Your task to perform on an android device: open app "Paramount+ | Peak Streaming" (install if not already installed) and enter user name: "fostered@yahoo.com" and password: "strong" Image 0: 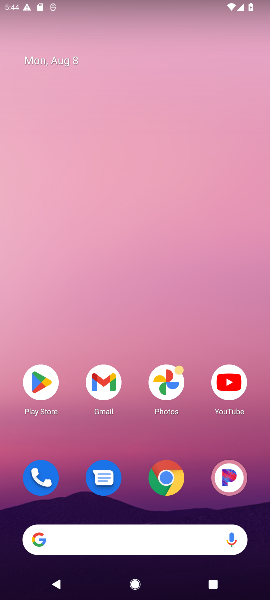
Step 0: drag from (153, 328) to (168, 244)
Your task to perform on an android device: open app "Paramount+ | Peak Streaming" (install if not already installed) and enter user name: "fostered@yahoo.com" and password: "strong" Image 1: 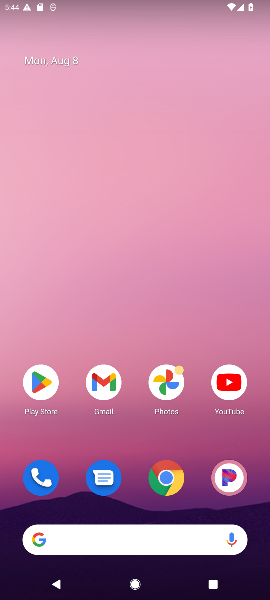
Step 1: click (46, 380)
Your task to perform on an android device: open app "Paramount+ | Peak Streaming" (install if not already installed) and enter user name: "fostered@yahoo.com" and password: "strong" Image 2: 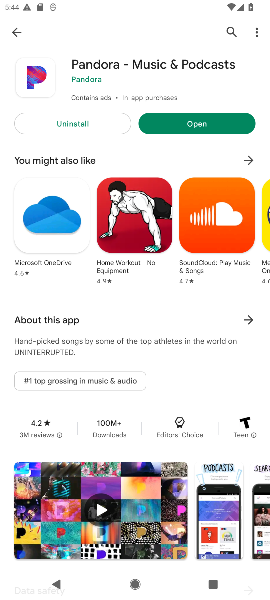
Step 2: click (229, 26)
Your task to perform on an android device: open app "Paramount+ | Peak Streaming" (install if not already installed) and enter user name: "fostered@yahoo.com" and password: "strong" Image 3: 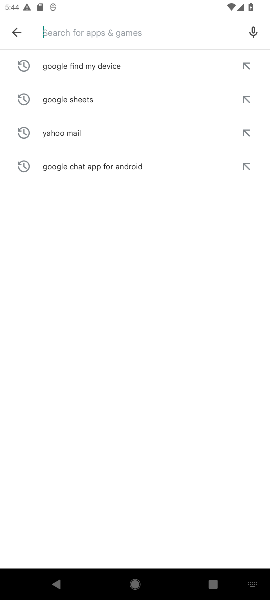
Step 3: type "paramount"
Your task to perform on an android device: open app "Paramount+ | Peak Streaming" (install if not already installed) and enter user name: "fostered@yahoo.com" and password: "strong" Image 4: 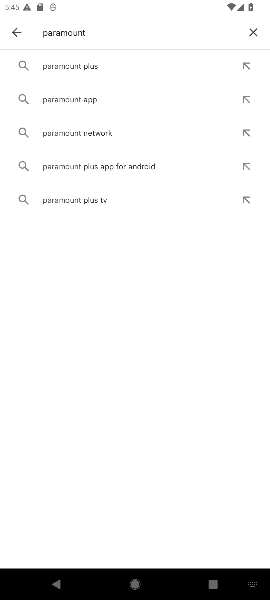
Step 4: type "+| Peask"
Your task to perform on an android device: open app "Paramount+ | Peak Streaming" (install if not already installed) and enter user name: "fostered@yahoo.com" and password: "strong" Image 5: 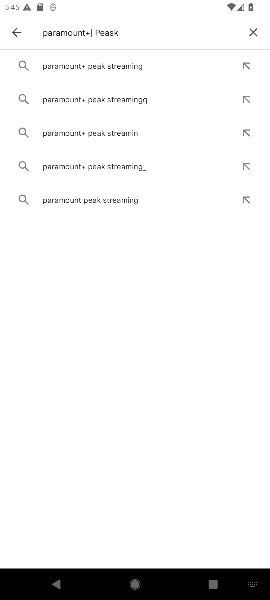
Step 5: click (123, 61)
Your task to perform on an android device: open app "Paramount+ | Peak Streaming" (install if not already installed) and enter user name: "fostered@yahoo.com" and password: "strong" Image 6: 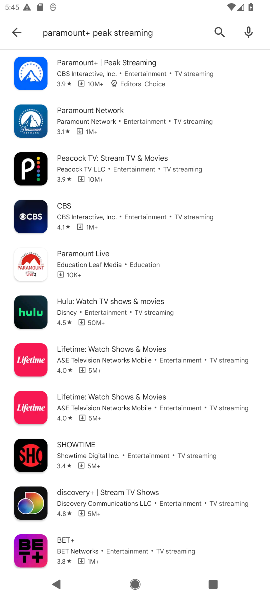
Step 6: click (119, 71)
Your task to perform on an android device: open app "Paramount+ | Peak Streaming" (install if not already installed) and enter user name: "fostered@yahoo.com" and password: "strong" Image 7: 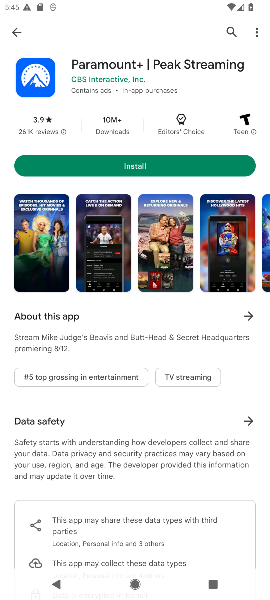
Step 7: click (144, 168)
Your task to perform on an android device: open app "Paramount+ | Peak Streaming" (install if not already installed) and enter user name: "fostered@yahoo.com" and password: "strong" Image 8: 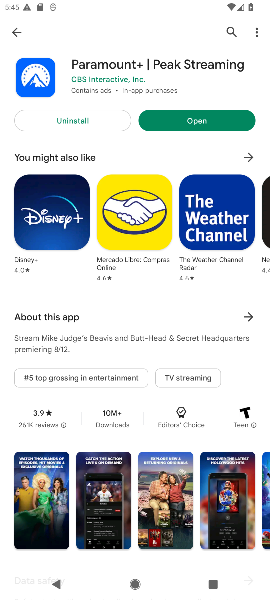
Step 8: click (203, 121)
Your task to perform on an android device: open app "Paramount+ | Peak Streaming" (install if not already installed) and enter user name: "fostered@yahoo.com" and password: "strong" Image 9: 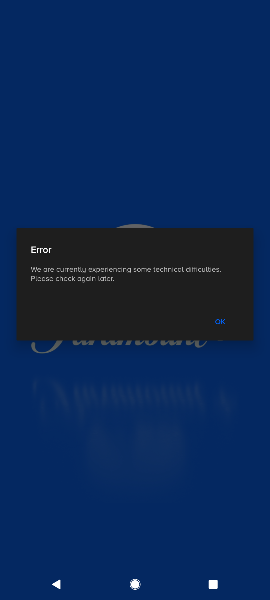
Step 9: click (218, 325)
Your task to perform on an android device: open app "Paramount+ | Peak Streaming" (install if not already installed) and enter user name: "fostered@yahoo.com" and password: "strong" Image 10: 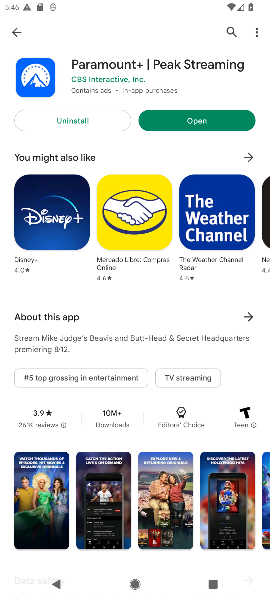
Step 10: click (219, 117)
Your task to perform on an android device: open app "Paramount+ | Peak Streaming" (install if not already installed) and enter user name: "fostered@yahoo.com" and password: "strong" Image 11: 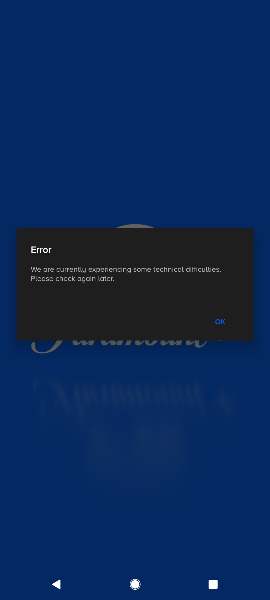
Step 11: task complete